Your task to perform on an android device: turn off data saver in the chrome app Image 0: 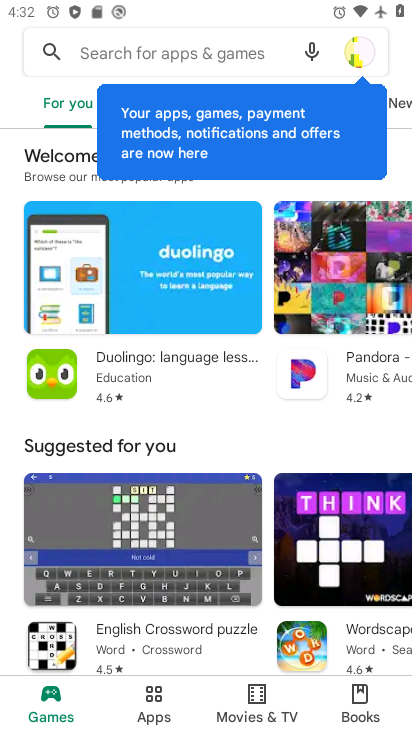
Step 0: press back button
Your task to perform on an android device: turn off data saver in the chrome app Image 1: 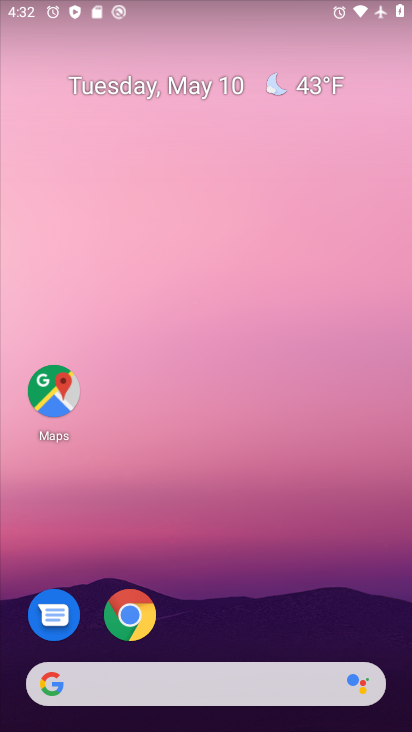
Step 1: drag from (300, 545) to (234, 74)
Your task to perform on an android device: turn off data saver in the chrome app Image 2: 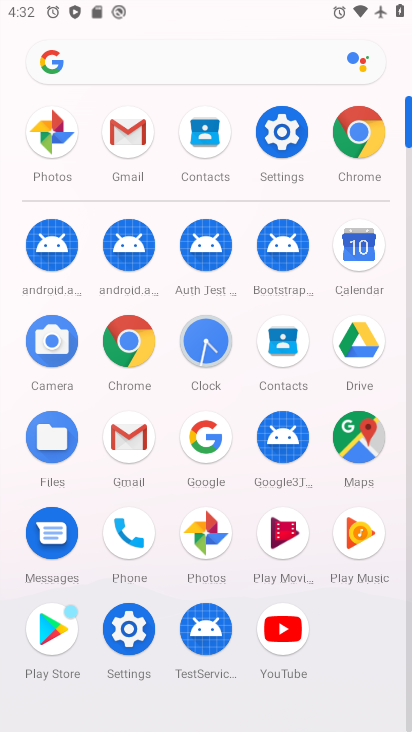
Step 2: click (123, 341)
Your task to perform on an android device: turn off data saver in the chrome app Image 3: 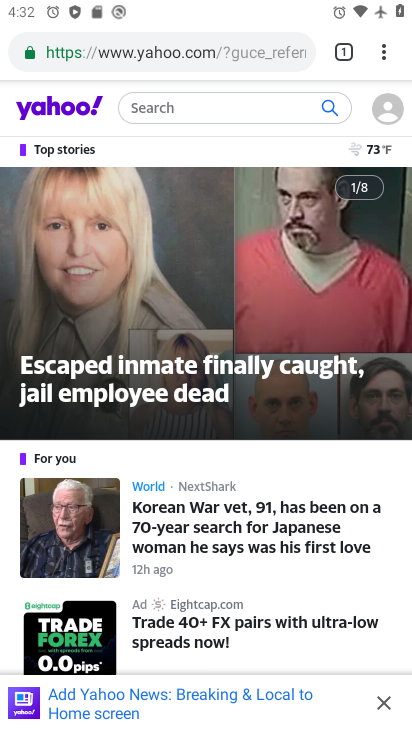
Step 3: drag from (381, 55) to (198, 639)
Your task to perform on an android device: turn off data saver in the chrome app Image 4: 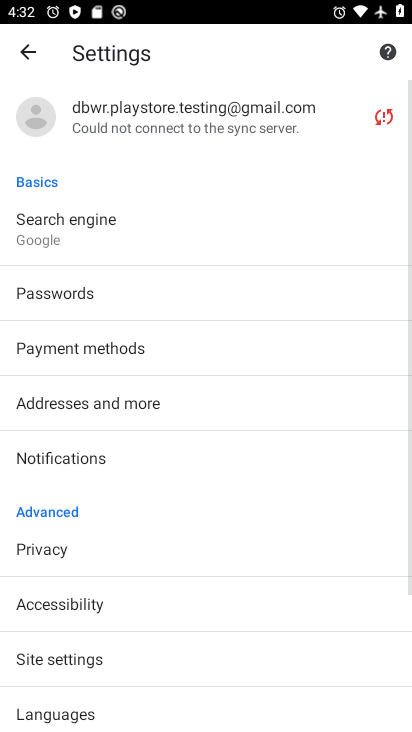
Step 4: drag from (197, 596) to (239, 183)
Your task to perform on an android device: turn off data saver in the chrome app Image 5: 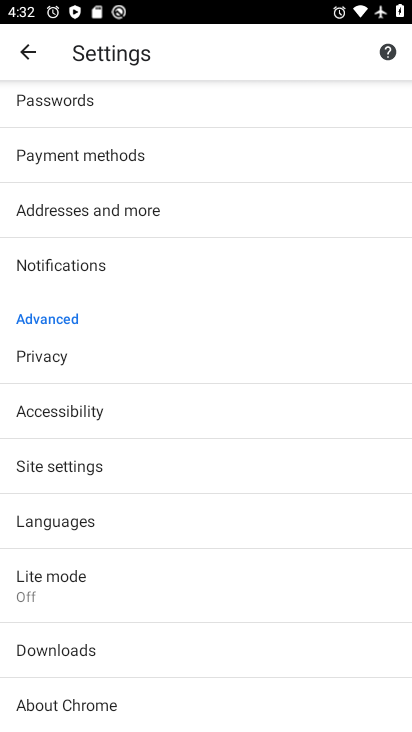
Step 5: click (108, 588)
Your task to perform on an android device: turn off data saver in the chrome app Image 6: 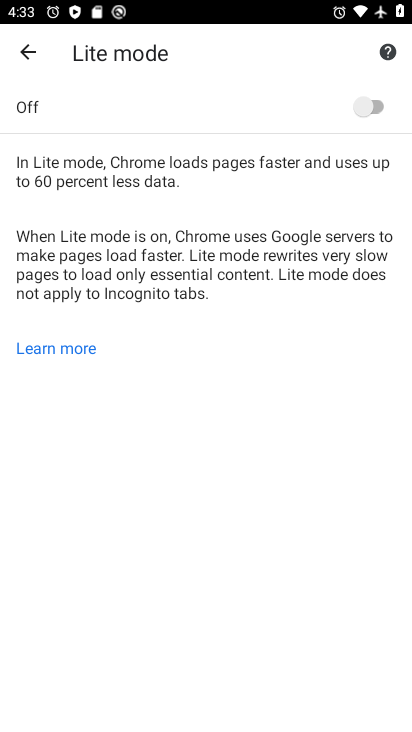
Step 6: task complete